Your task to perform on an android device: Go to display settings Image 0: 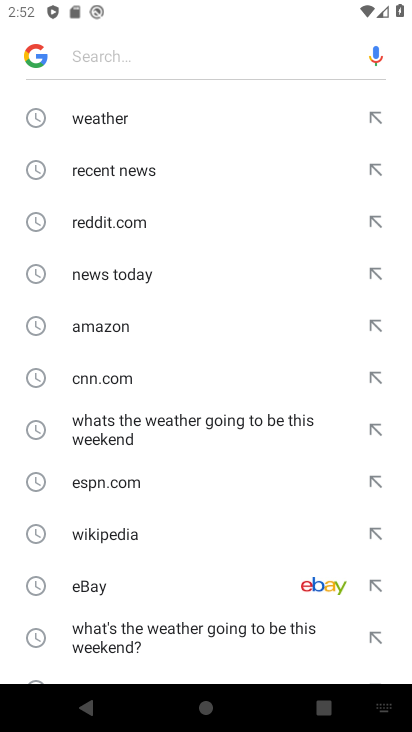
Step 0: press home button
Your task to perform on an android device: Go to display settings Image 1: 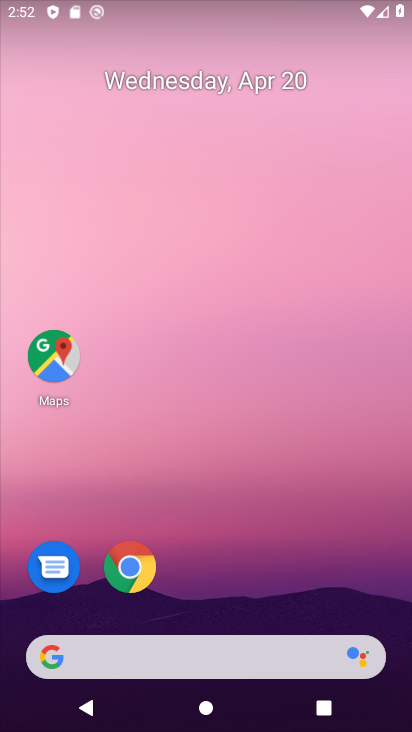
Step 1: drag from (226, 605) to (255, 70)
Your task to perform on an android device: Go to display settings Image 2: 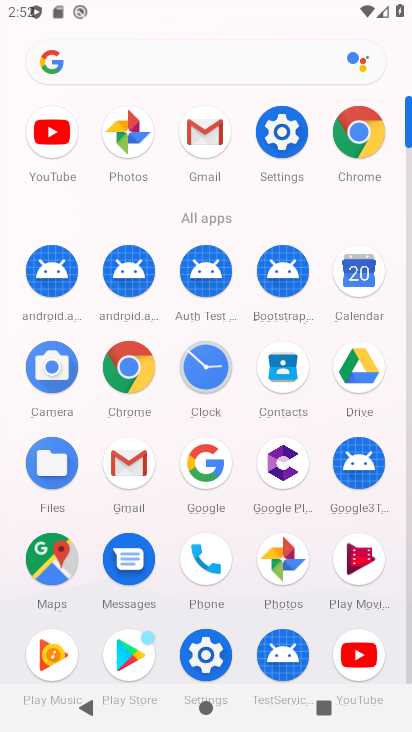
Step 2: click (281, 125)
Your task to perform on an android device: Go to display settings Image 3: 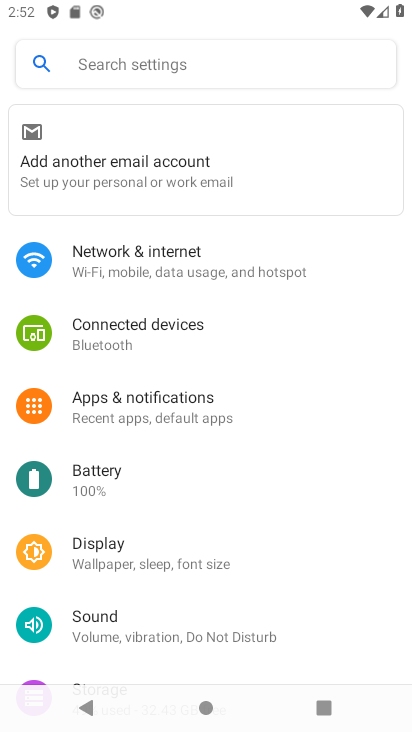
Step 3: click (121, 564)
Your task to perform on an android device: Go to display settings Image 4: 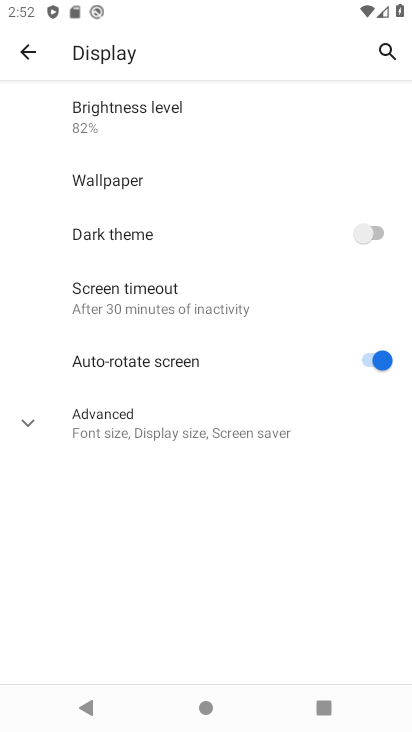
Step 4: task complete